Your task to perform on an android device: check android version Image 0: 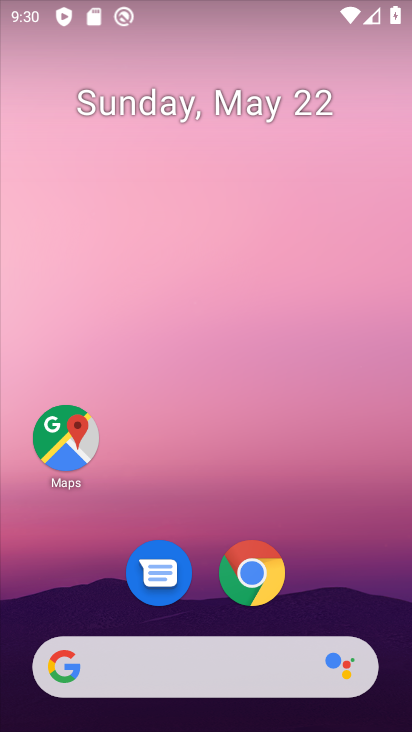
Step 0: drag from (392, 684) to (376, 369)
Your task to perform on an android device: check android version Image 1: 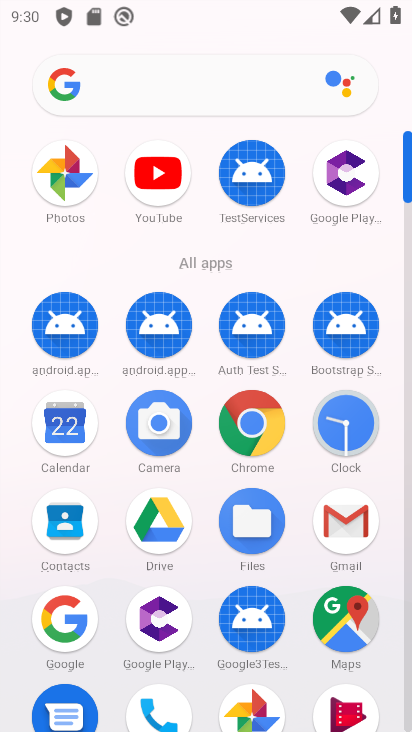
Step 1: click (408, 726)
Your task to perform on an android device: check android version Image 2: 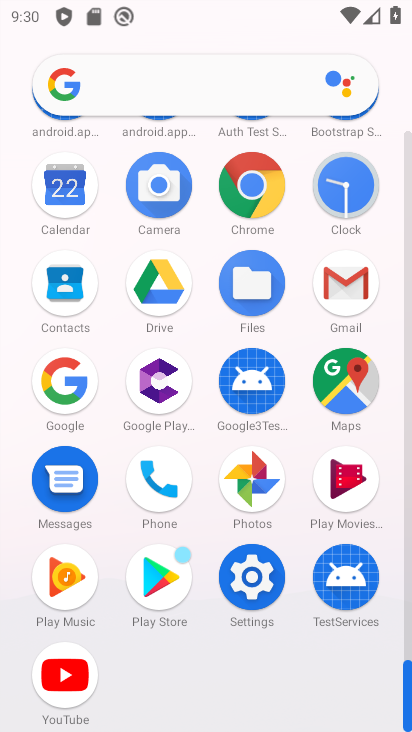
Step 2: click (67, 675)
Your task to perform on an android device: check android version Image 3: 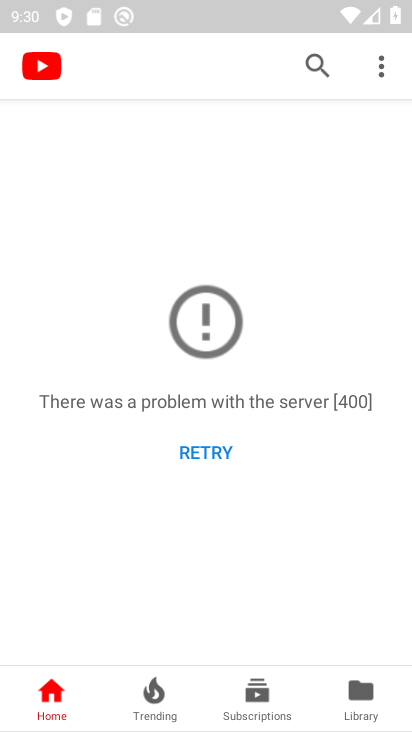
Step 3: press home button
Your task to perform on an android device: check android version Image 4: 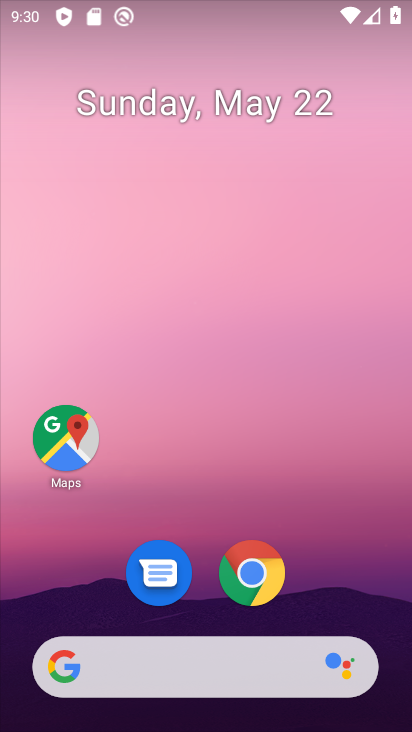
Step 4: drag from (355, 577) to (317, 30)
Your task to perform on an android device: check android version Image 5: 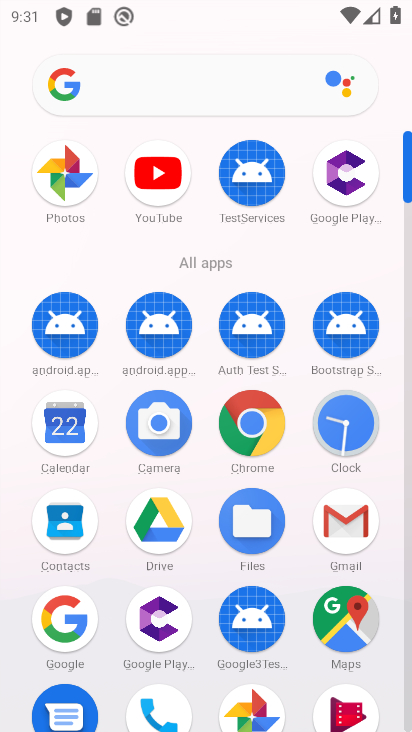
Step 5: click (409, 727)
Your task to perform on an android device: check android version Image 6: 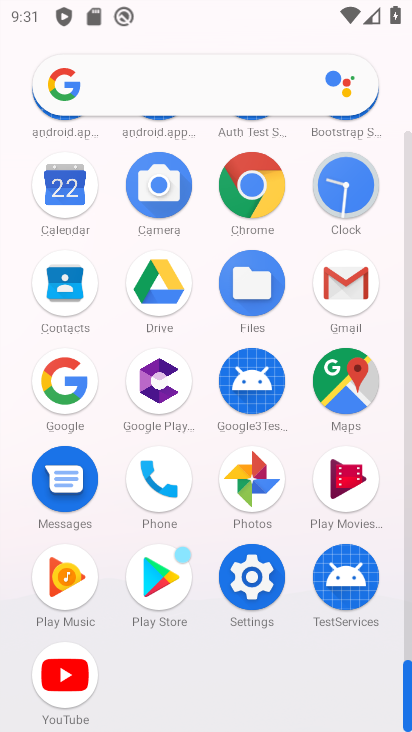
Step 6: click (238, 605)
Your task to perform on an android device: check android version Image 7: 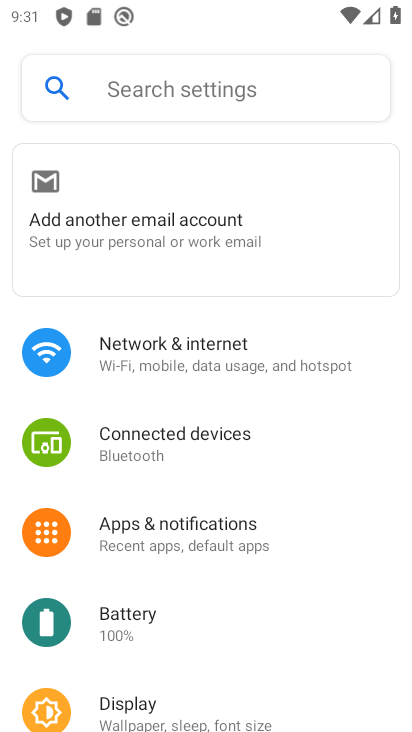
Step 7: drag from (252, 672) to (366, 12)
Your task to perform on an android device: check android version Image 8: 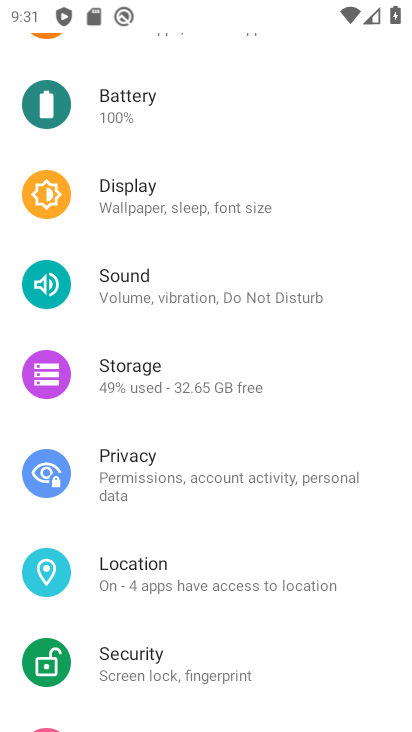
Step 8: drag from (147, 676) to (402, 250)
Your task to perform on an android device: check android version Image 9: 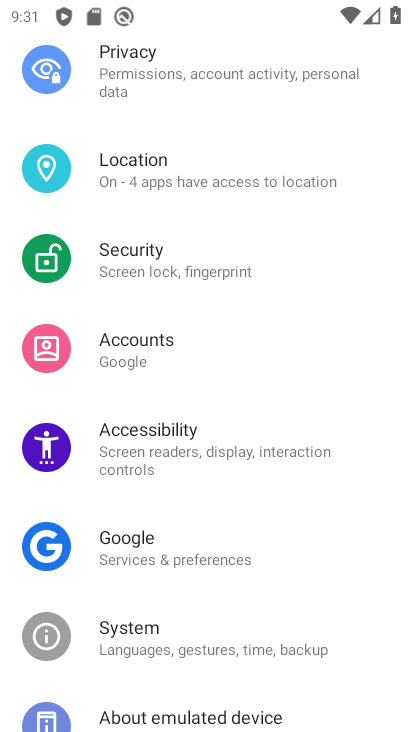
Step 9: drag from (205, 602) to (249, 86)
Your task to perform on an android device: check android version Image 10: 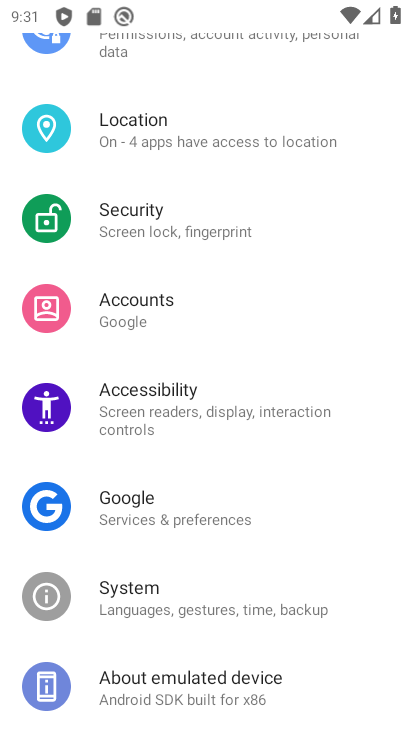
Step 10: click (130, 697)
Your task to perform on an android device: check android version Image 11: 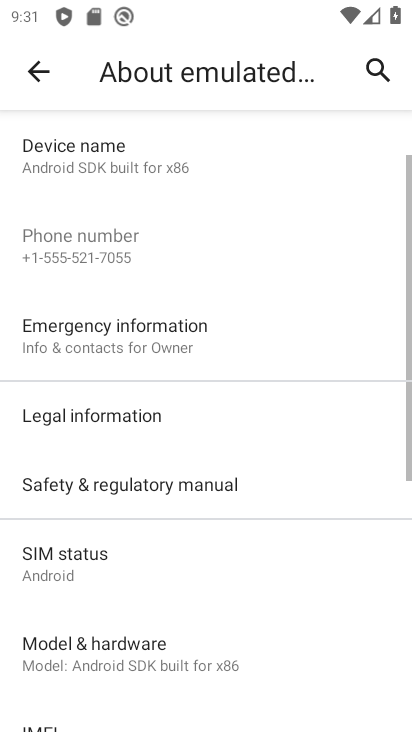
Step 11: task complete